Your task to perform on an android device: open app "DuckDuckGo Privacy Browser" Image 0: 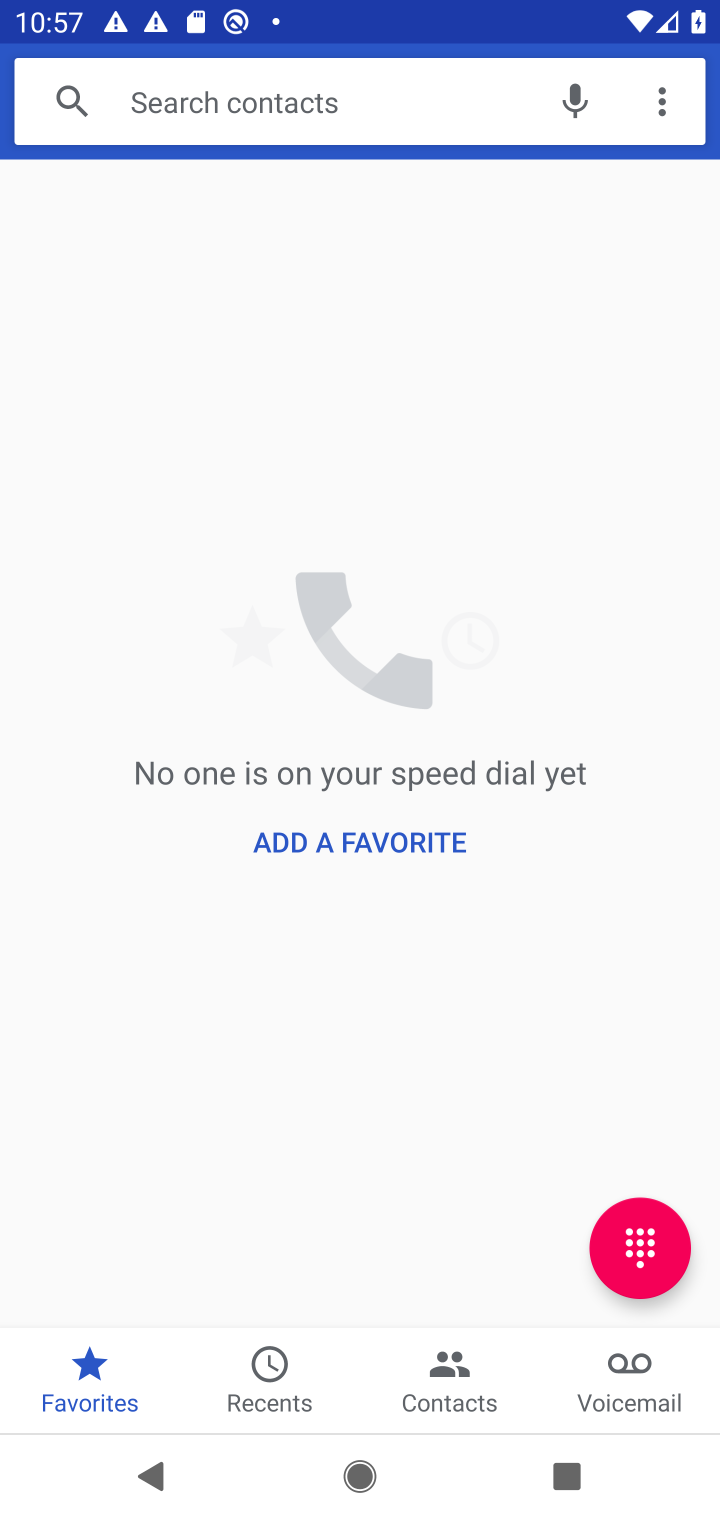
Step 0: press home button
Your task to perform on an android device: open app "DuckDuckGo Privacy Browser" Image 1: 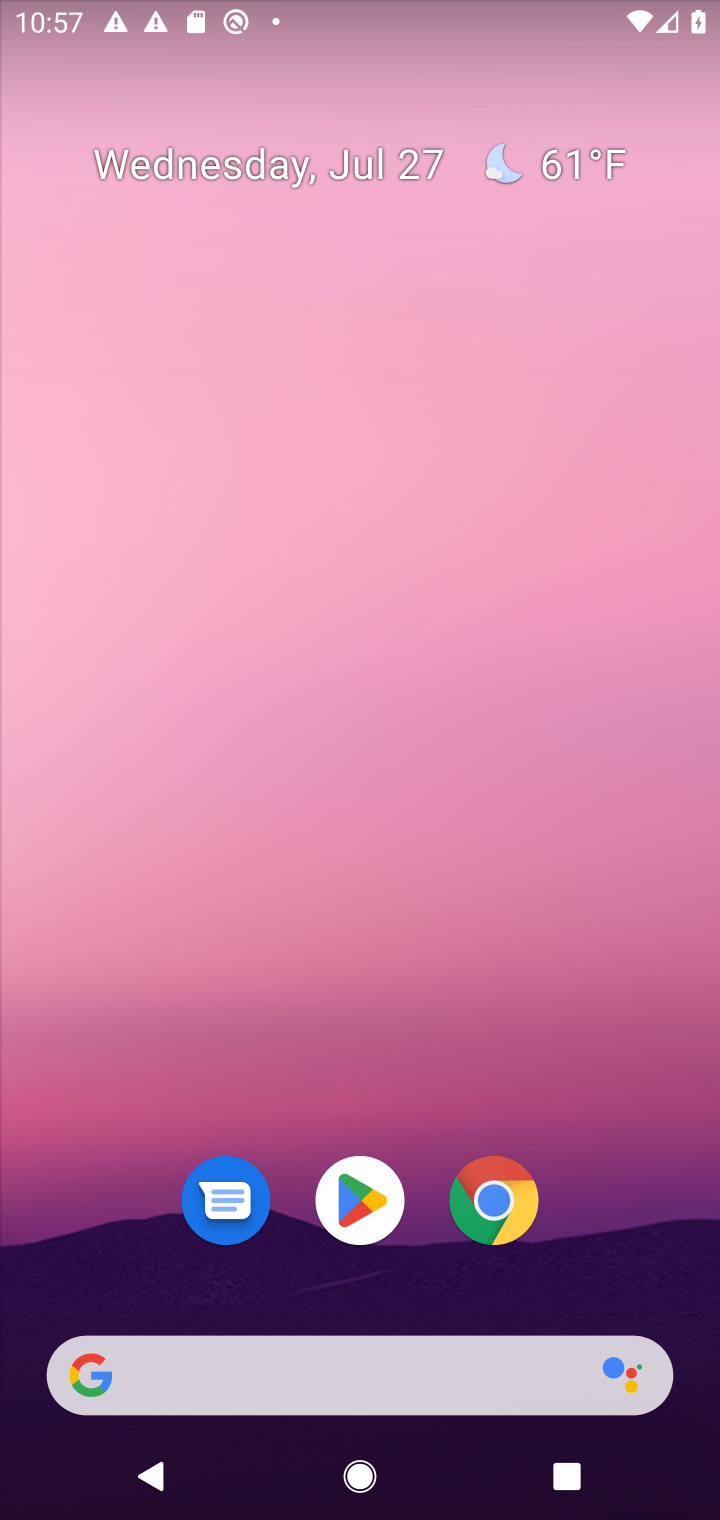
Step 1: click (371, 1200)
Your task to perform on an android device: open app "DuckDuckGo Privacy Browser" Image 2: 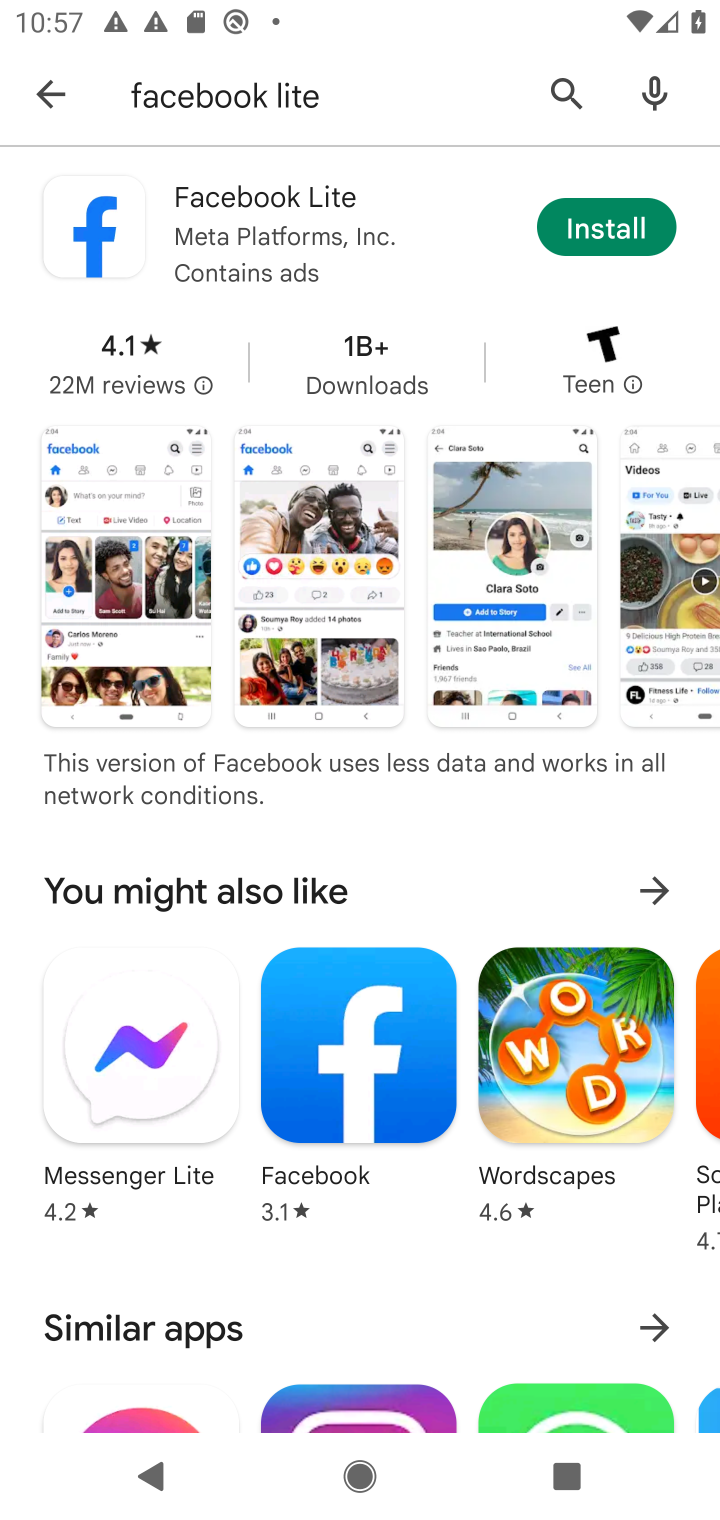
Step 2: click (50, 96)
Your task to perform on an android device: open app "DuckDuckGo Privacy Browser" Image 3: 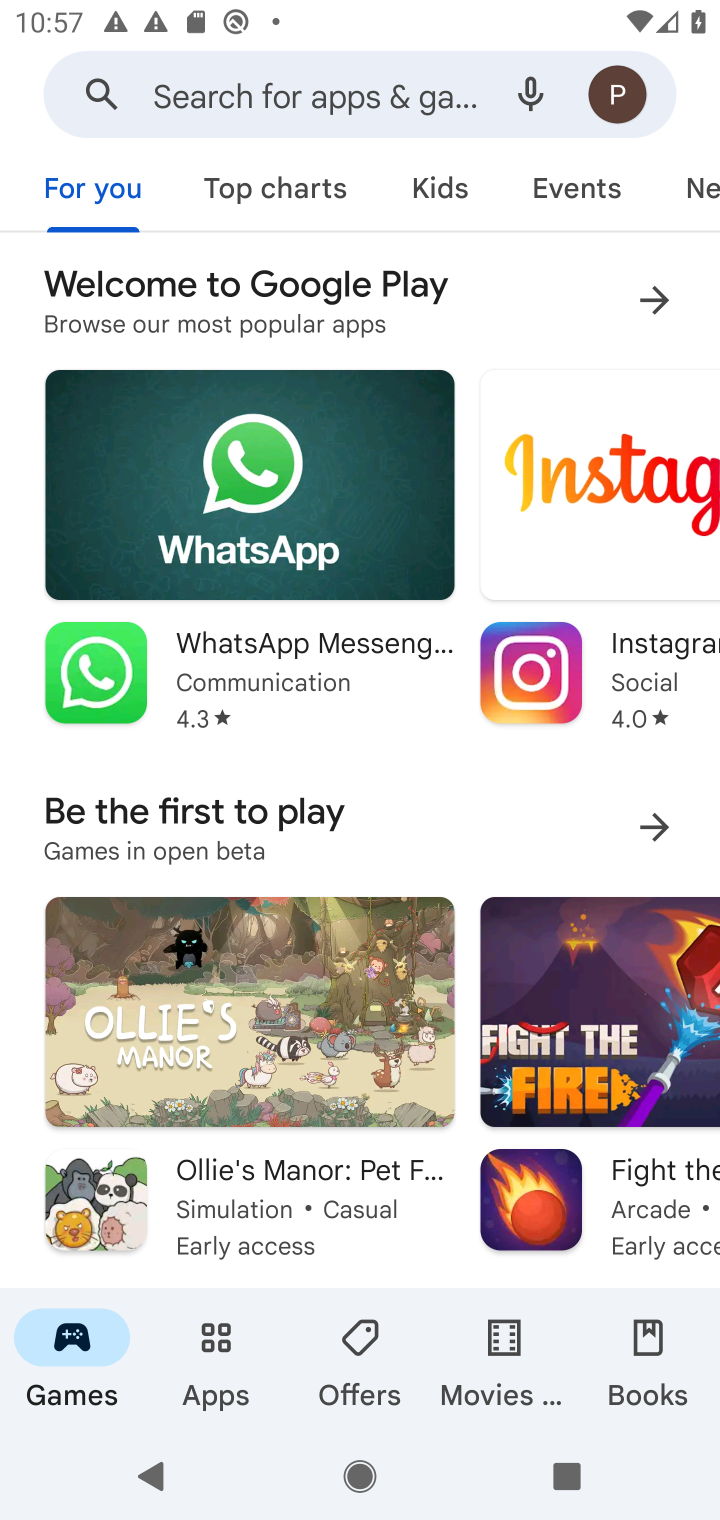
Step 3: click (357, 72)
Your task to perform on an android device: open app "DuckDuckGo Privacy Browser" Image 4: 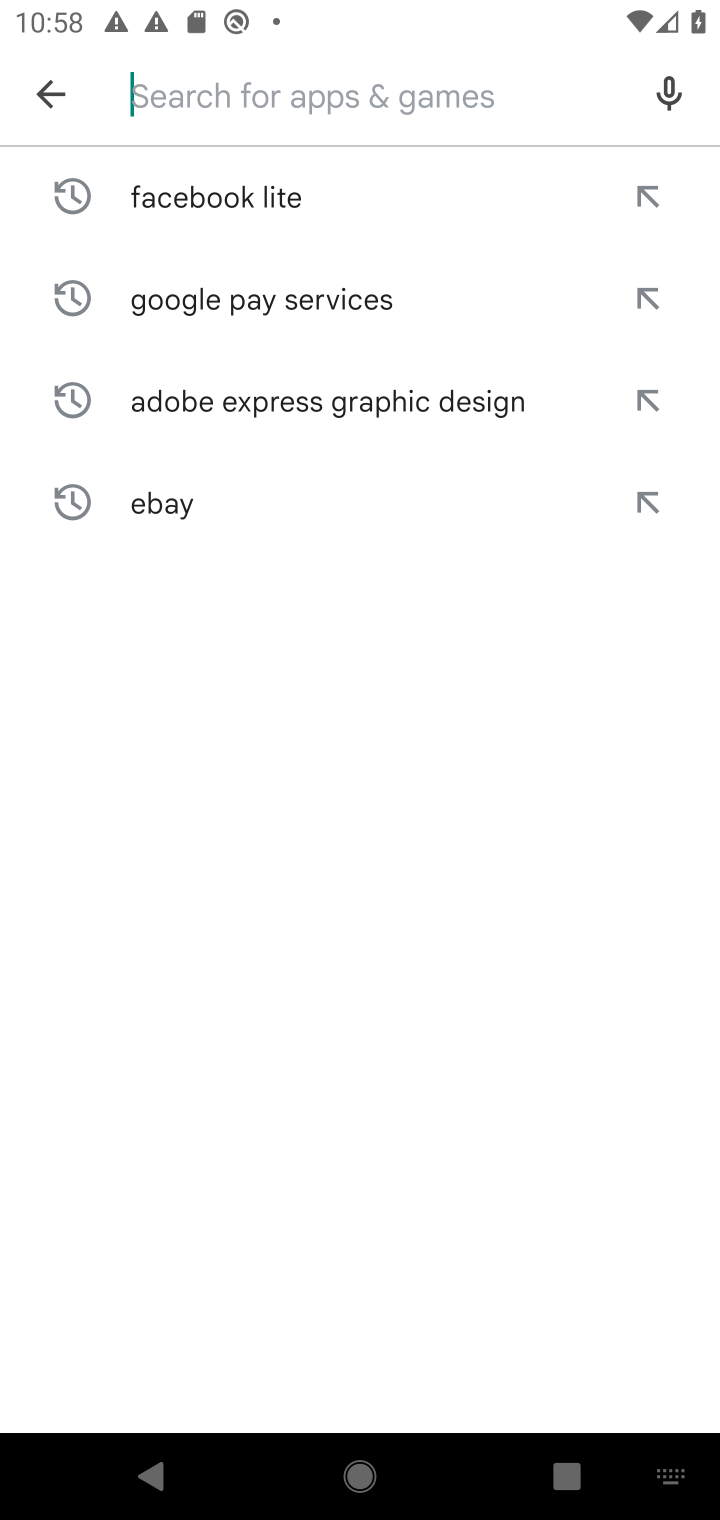
Step 4: type "duckduckprivacy browser"
Your task to perform on an android device: open app "DuckDuckGo Privacy Browser" Image 5: 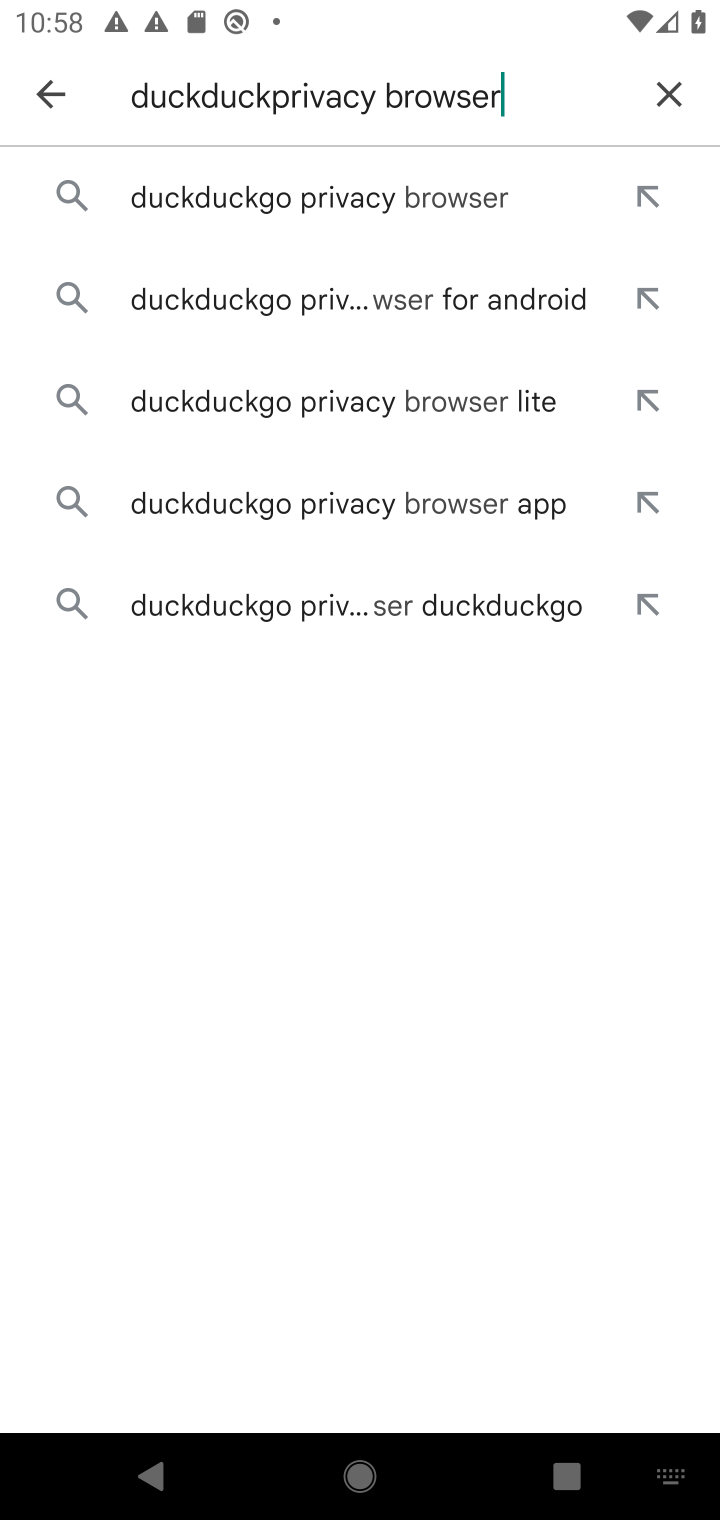
Step 5: click (407, 179)
Your task to perform on an android device: open app "DuckDuckGo Privacy Browser" Image 6: 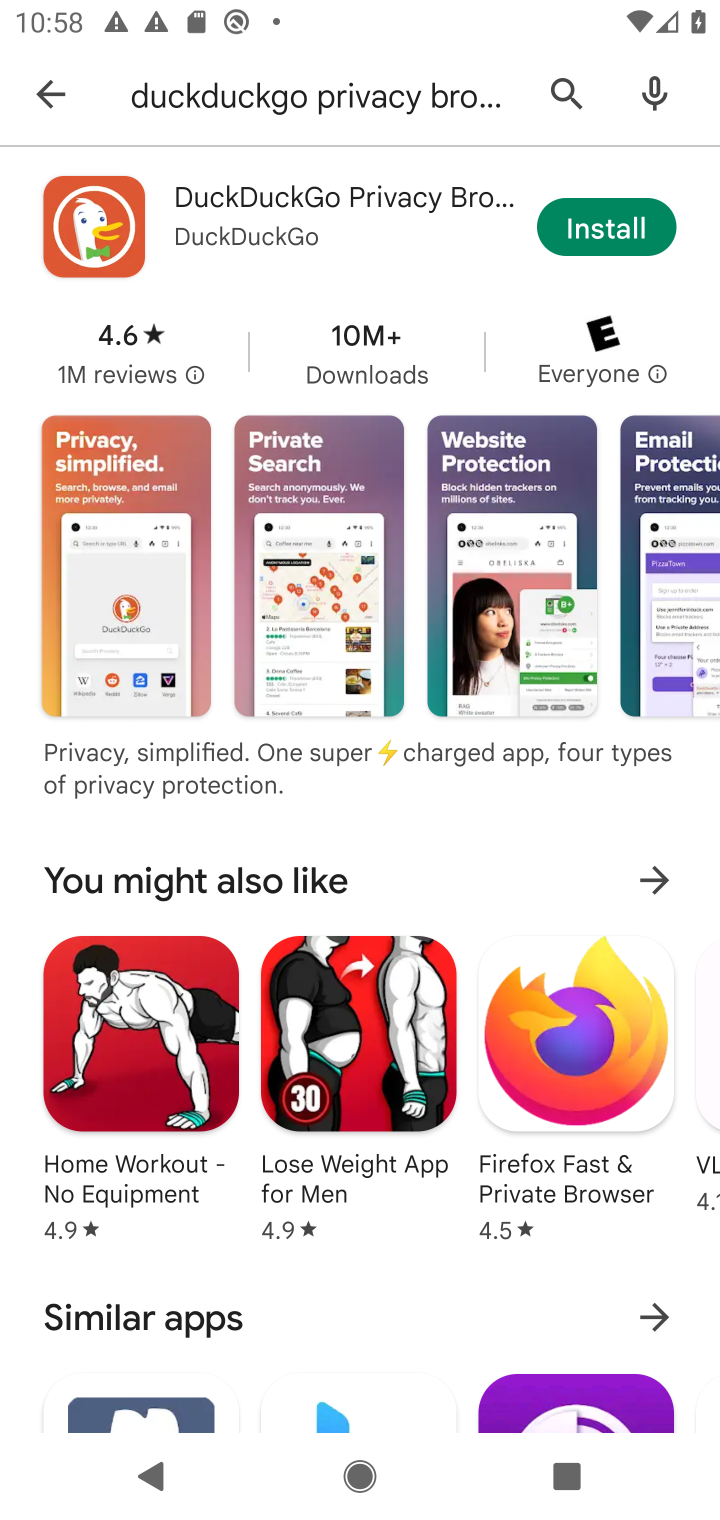
Step 6: click (428, 190)
Your task to perform on an android device: open app "DuckDuckGo Privacy Browser" Image 7: 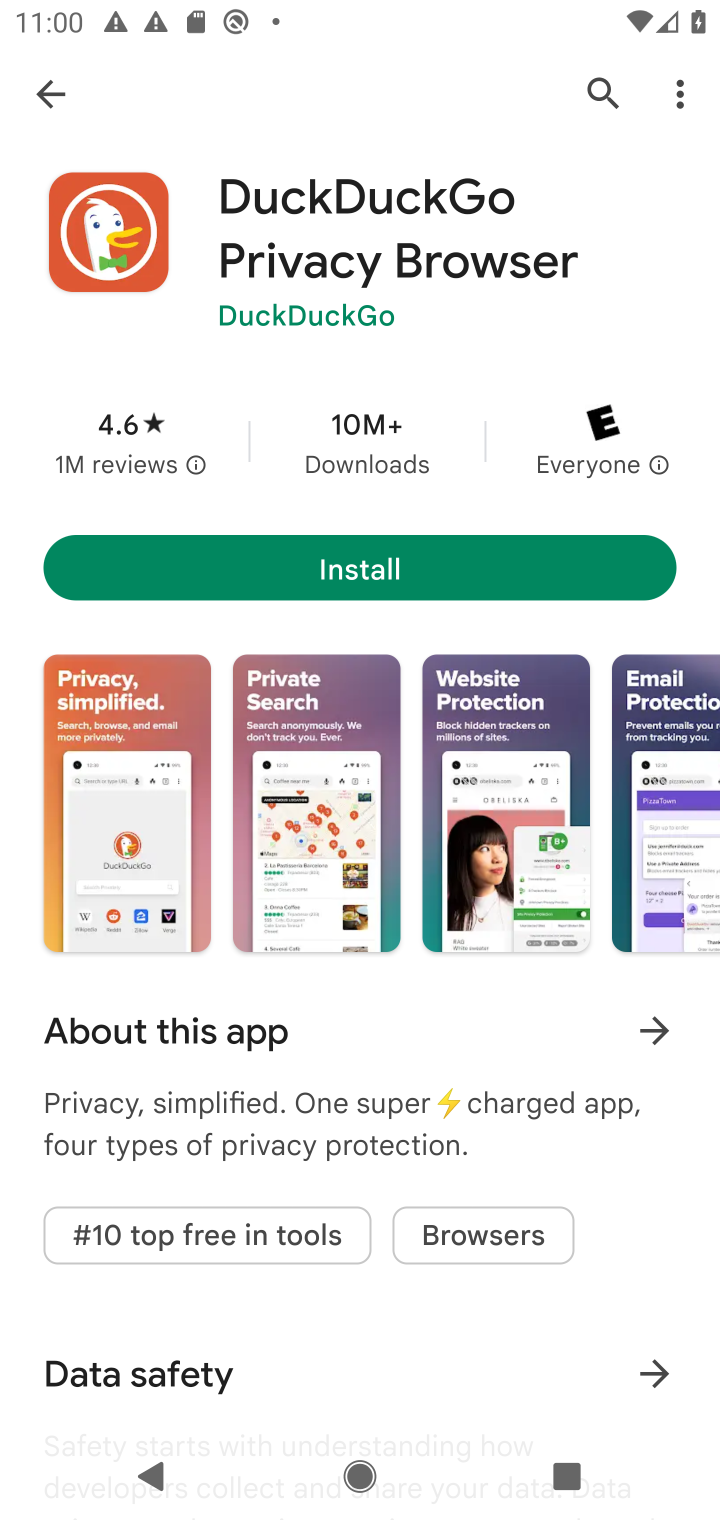
Step 7: task complete